Your task to perform on an android device: stop showing notifications on the lock screen Image 0: 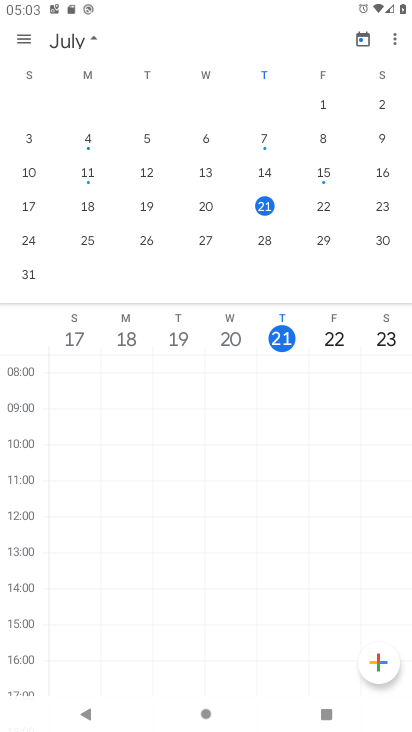
Step 0: press home button
Your task to perform on an android device: stop showing notifications on the lock screen Image 1: 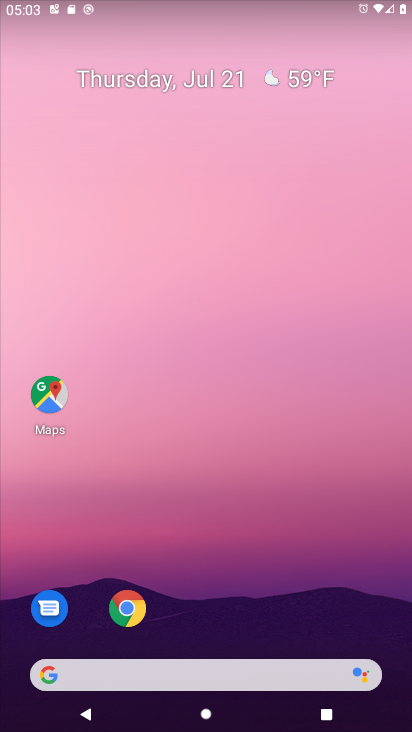
Step 1: drag from (231, 670) to (324, 97)
Your task to perform on an android device: stop showing notifications on the lock screen Image 2: 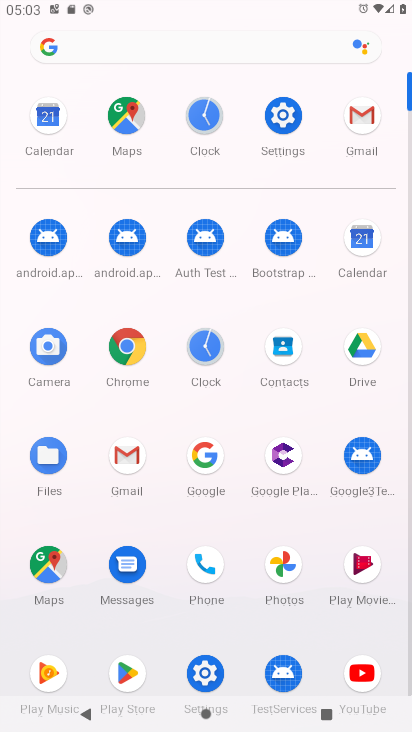
Step 2: click (293, 125)
Your task to perform on an android device: stop showing notifications on the lock screen Image 3: 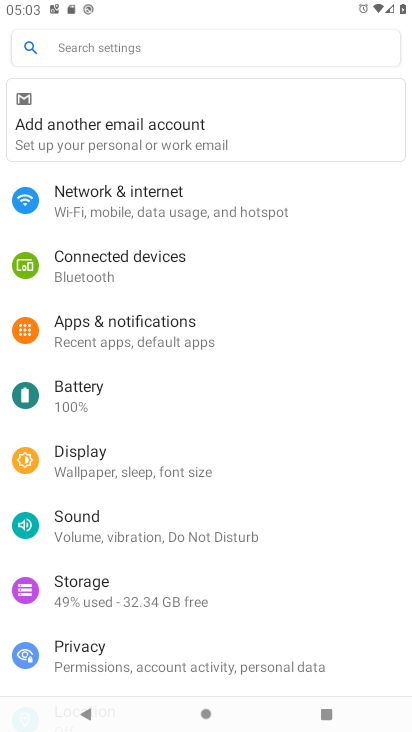
Step 3: click (158, 326)
Your task to perform on an android device: stop showing notifications on the lock screen Image 4: 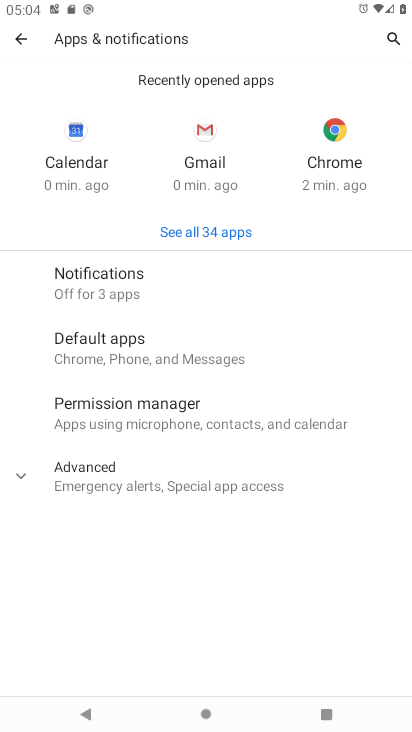
Step 4: click (118, 281)
Your task to perform on an android device: stop showing notifications on the lock screen Image 5: 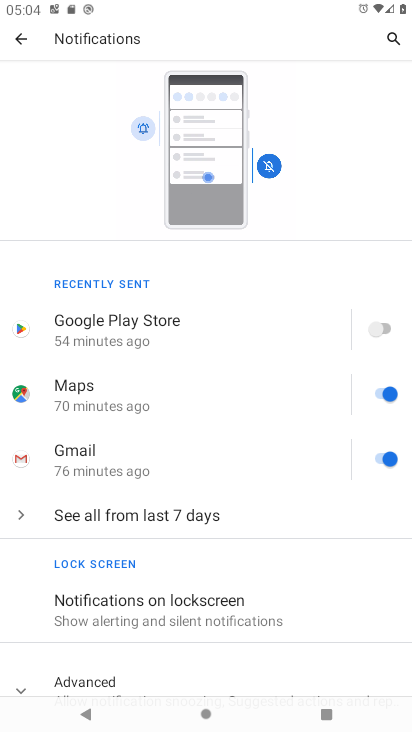
Step 5: click (89, 611)
Your task to perform on an android device: stop showing notifications on the lock screen Image 6: 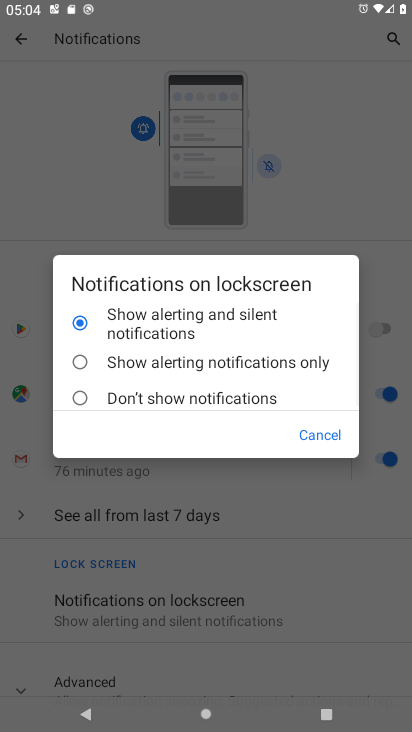
Step 6: click (72, 394)
Your task to perform on an android device: stop showing notifications on the lock screen Image 7: 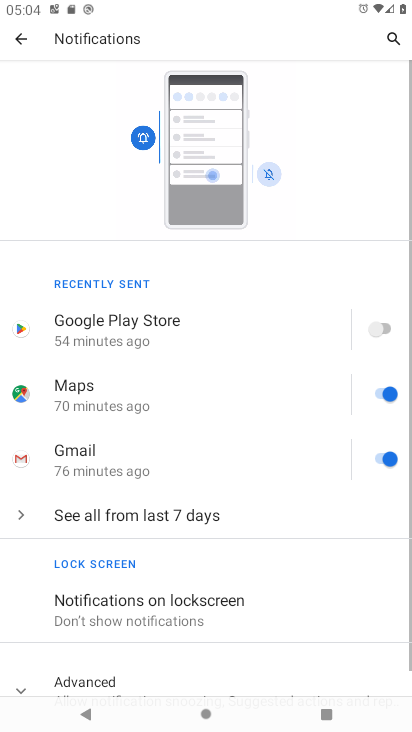
Step 7: task complete